Your task to perform on an android device: Go to accessibility settings Image 0: 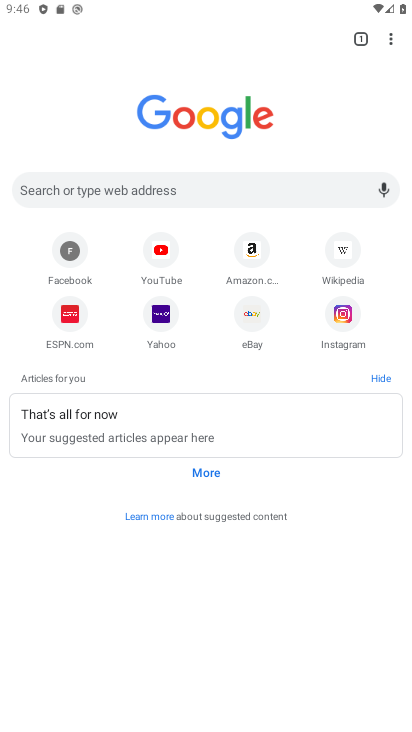
Step 0: drag from (311, 706) to (243, 332)
Your task to perform on an android device: Go to accessibility settings Image 1: 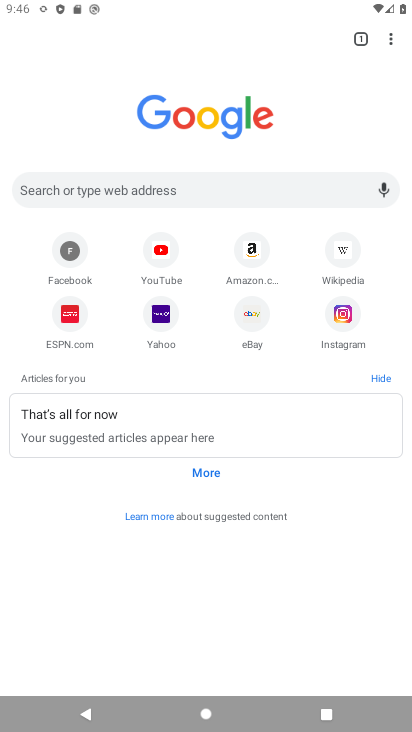
Step 1: press back button
Your task to perform on an android device: Go to accessibility settings Image 2: 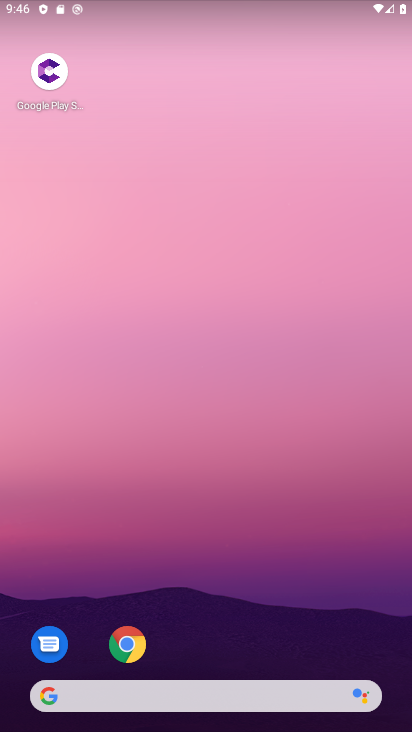
Step 2: drag from (214, 627) to (192, 45)
Your task to perform on an android device: Go to accessibility settings Image 3: 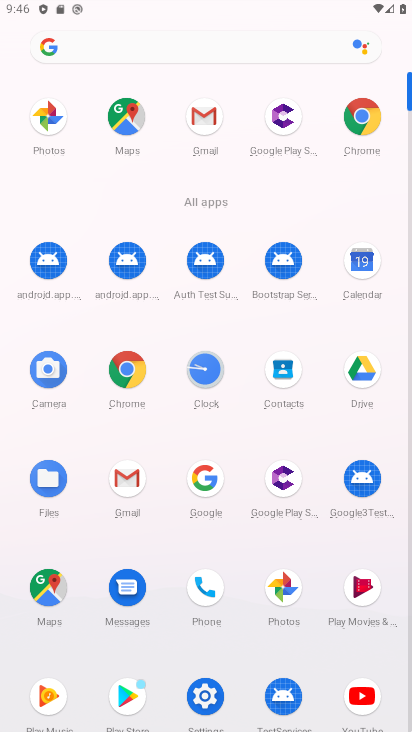
Step 3: click (186, 704)
Your task to perform on an android device: Go to accessibility settings Image 4: 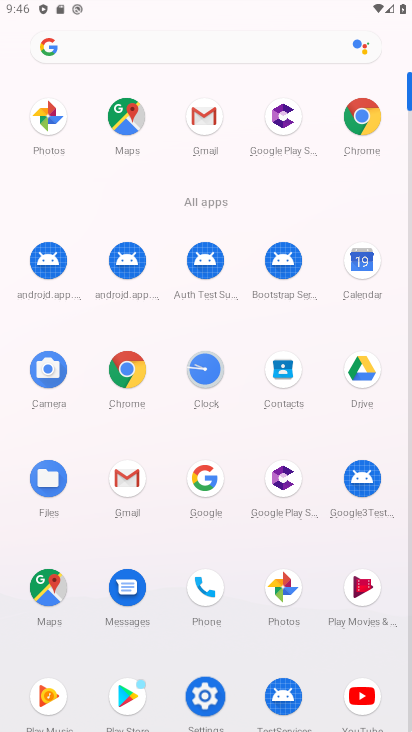
Step 4: click (210, 697)
Your task to perform on an android device: Go to accessibility settings Image 5: 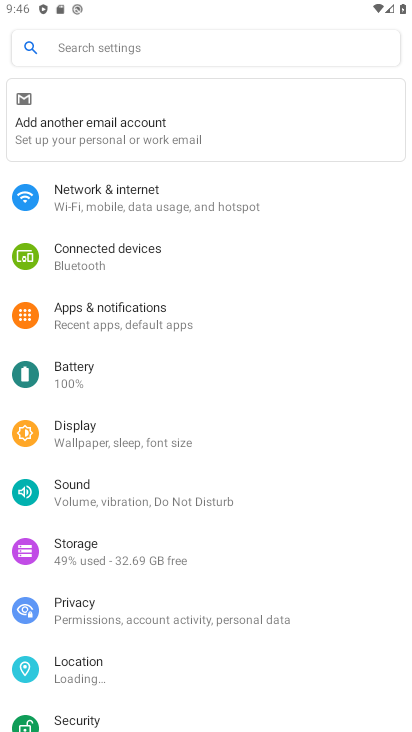
Step 5: drag from (127, 520) to (144, 71)
Your task to perform on an android device: Go to accessibility settings Image 6: 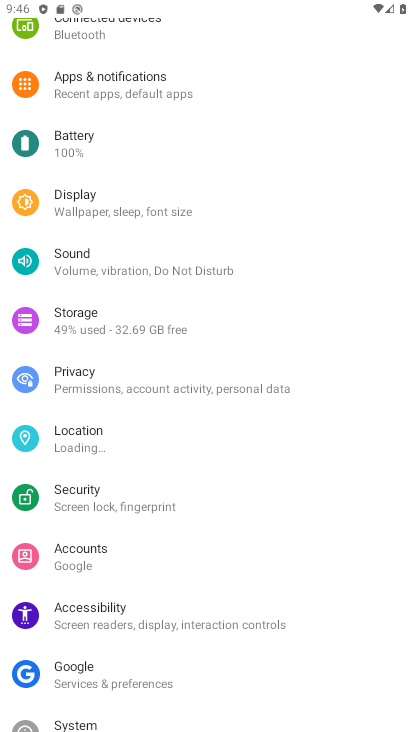
Step 6: drag from (157, 398) to (107, 79)
Your task to perform on an android device: Go to accessibility settings Image 7: 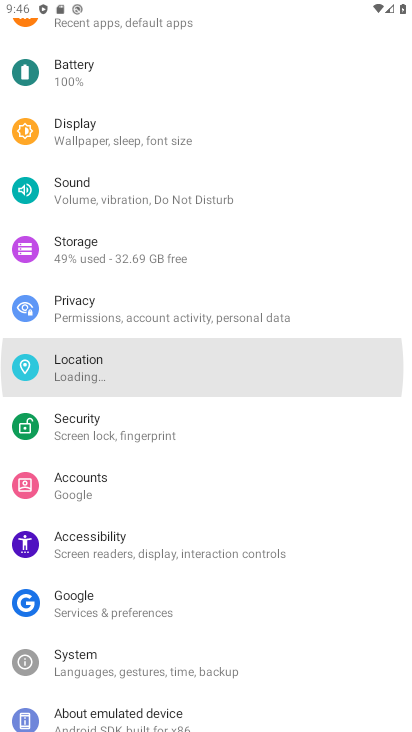
Step 7: drag from (170, 465) to (115, 81)
Your task to perform on an android device: Go to accessibility settings Image 8: 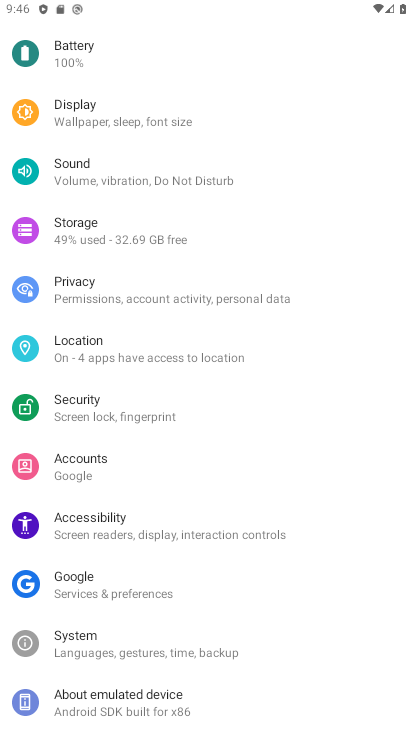
Step 8: click (90, 520)
Your task to perform on an android device: Go to accessibility settings Image 9: 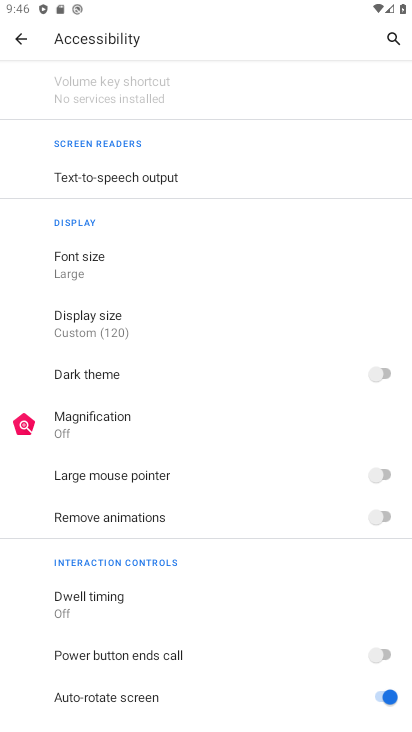
Step 9: task complete